Your task to perform on an android device: visit the assistant section in the google photos Image 0: 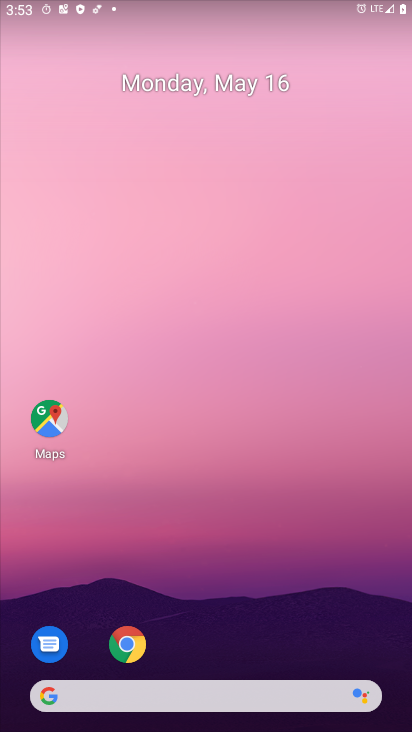
Step 0: drag from (142, 708) to (238, 141)
Your task to perform on an android device: visit the assistant section in the google photos Image 1: 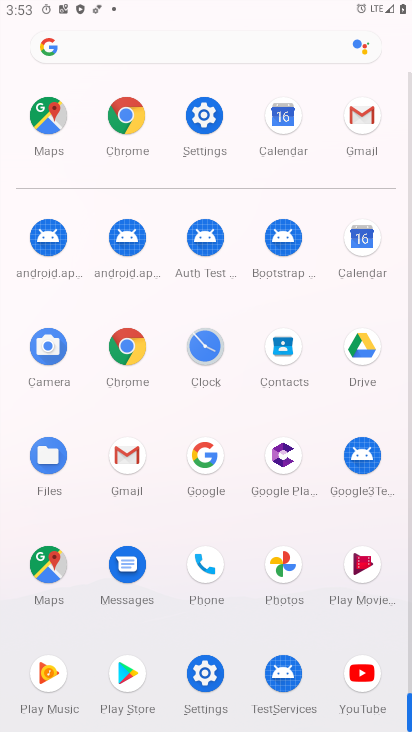
Step 1: click (280, 592)
Your task to perform on an android device: visit the assistant section in the google photos Image 2: 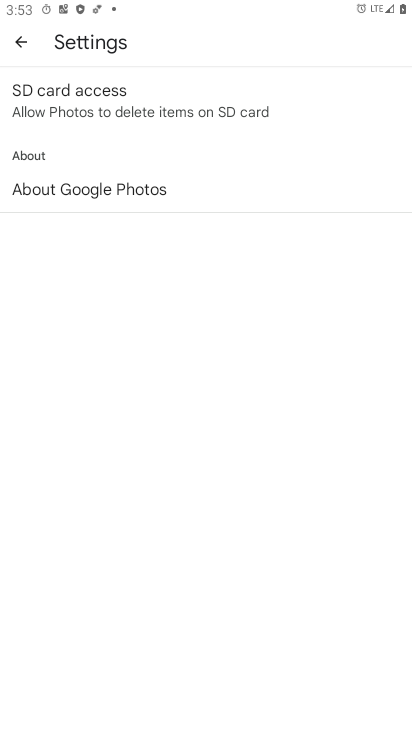
Step 2: press home button
Your task to perform on an android device: visit the assistant section in the google photos Image 3: 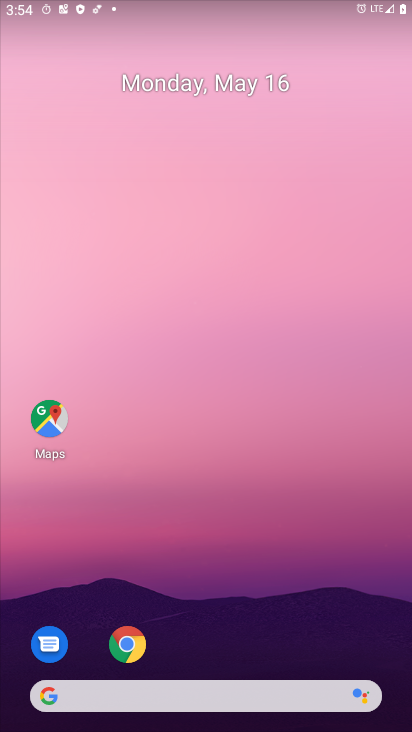
Step 3: drag from (223, 651) to (238, 144)
Your task to perform on an android device: visit the assistant section in the google photos Image 4: 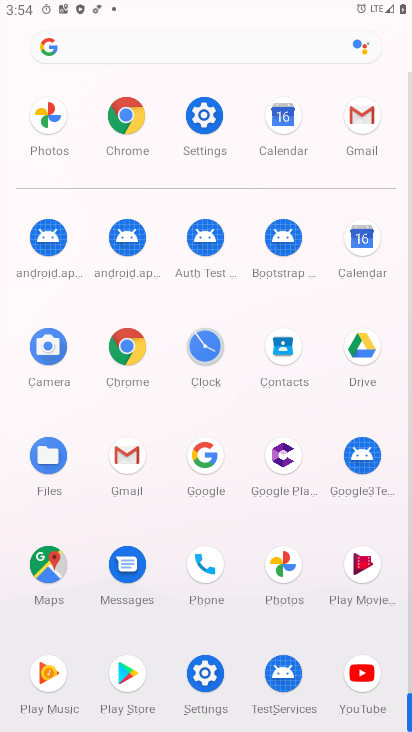
Step 4: click (276, 592)
Your task to perform on an android device: visit the assistant section in the google photos Image 5: 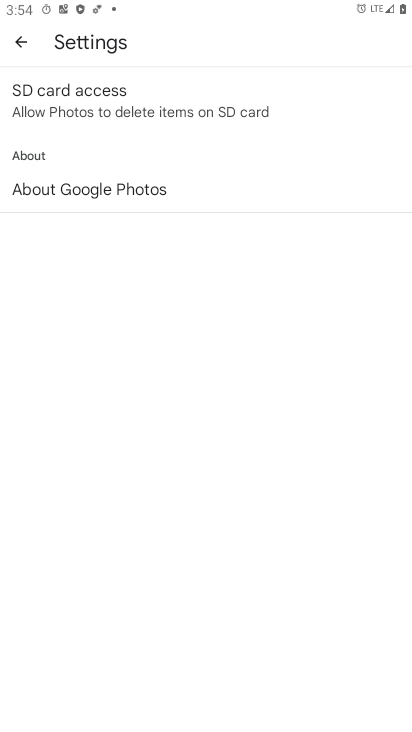
Step 5: click (30, 49)
Your task to perform on an android device: visit the assistant section in the google photos Image 6: 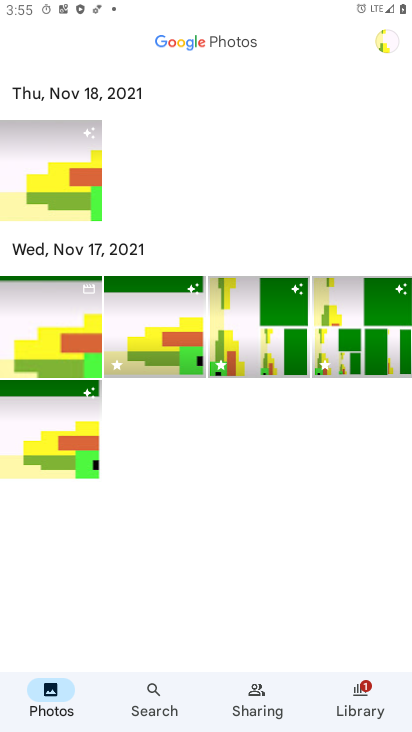
Step 6: task complete